Your task to perform on an android device: Go to Android settings Image 0: 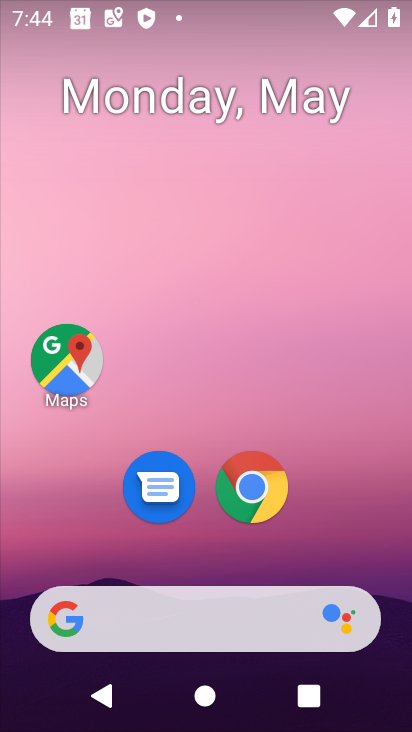
Step 0: drag from (366, 549) to (371, 304)
Your task to perform on an android device: Go to Android settings Image 1: 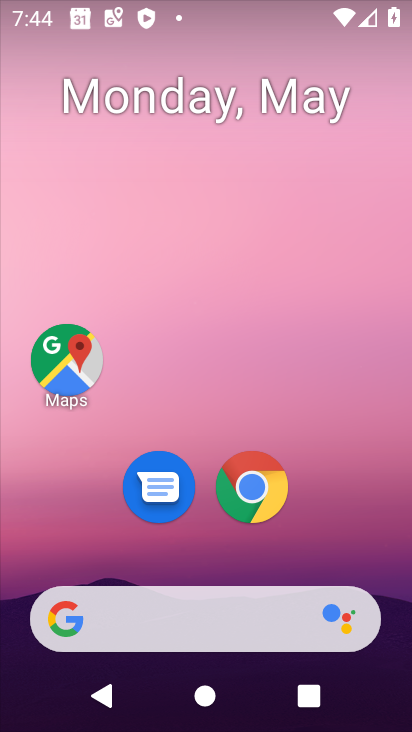
Step 1: drag from (347, 551) to (327, 100)
Your task to perform on an android device: Go to Android settings Image 2: 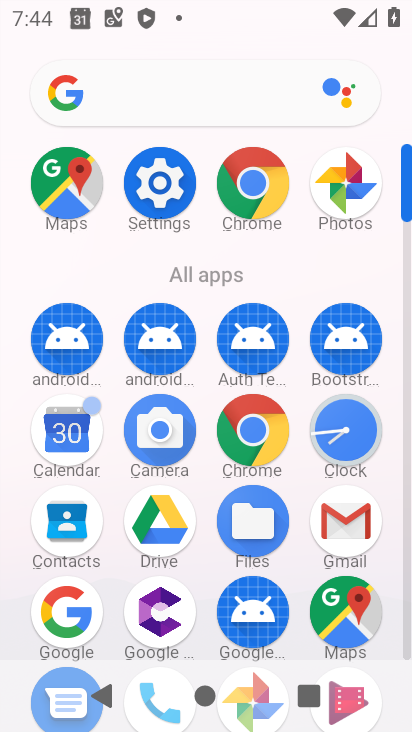
Step 2: click (172, 208)
Your task to perform on an android device: Go to Android settings Image 3: 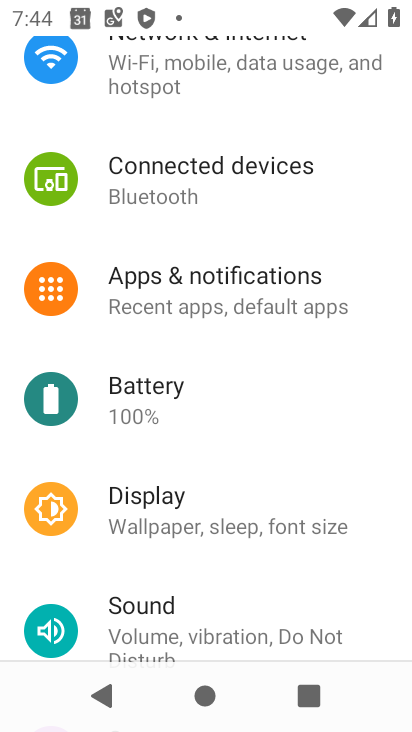
Step 3: drag from (371, 200) to (371, 303)
Your task to perform on an android device: Go to Android settings Image 4: 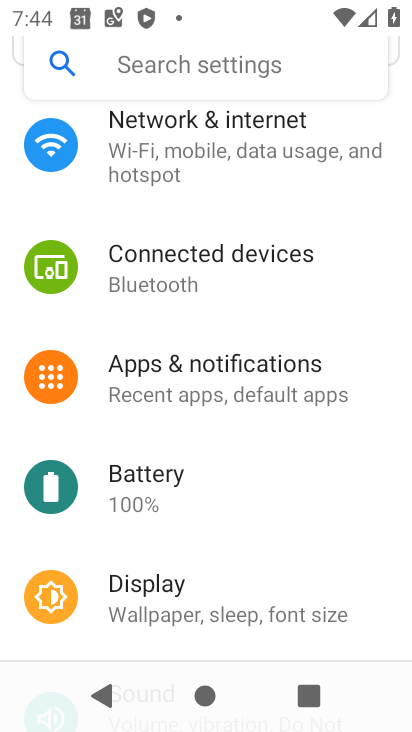
Step 4: drag from (357, 145) to (351, 386)
Your task to perform on an android device: Go to Android settings Image 5: 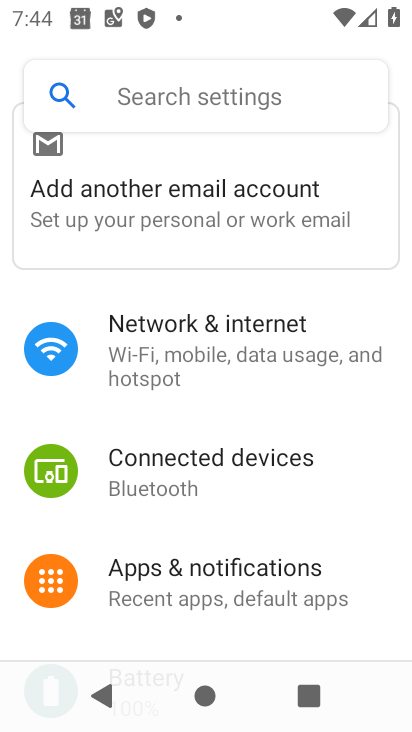
Step 5: drag from (346, 429) to (362, 262)
Your task to perform on an android device: Go to Android settings Image 6: 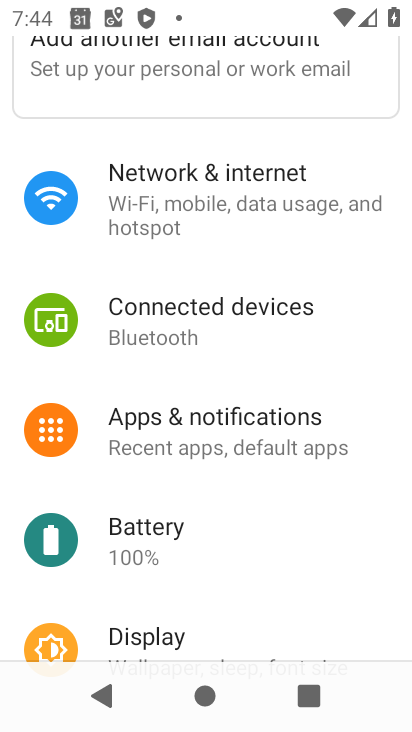
Step 6: drag from (357, 481) to (365, 252)
Your task to perform on an android device: Go to Android settings Image 7: 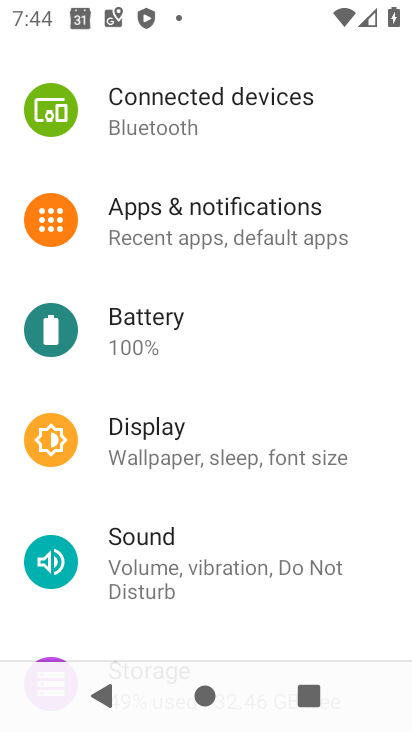
Step 7: drag from (353, 558) to (371, 364)
Your task to perform on an android device: Go to Android settings Image 8: 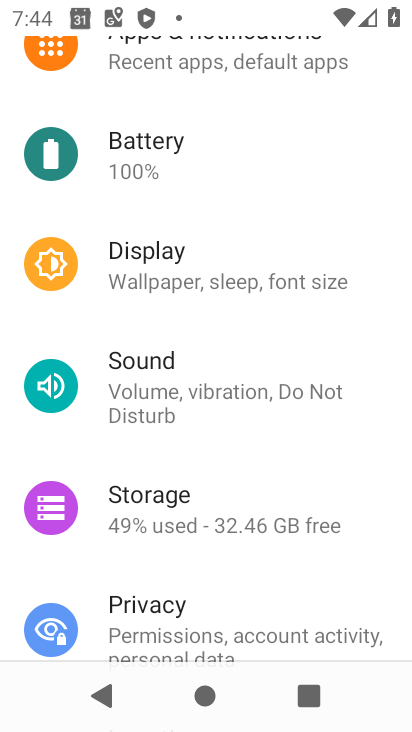
Step 8: drag from (351, 584) to (311, 296)
Your task to perform on an android device: Go to Android settings Image 9: 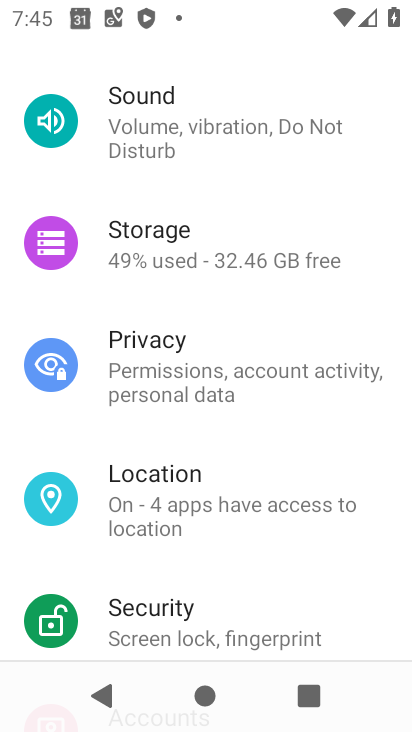
Step 9: drag from (352, 559) to (345, 440)
Your task to perform on an android device: Go to Android settings Image 10: 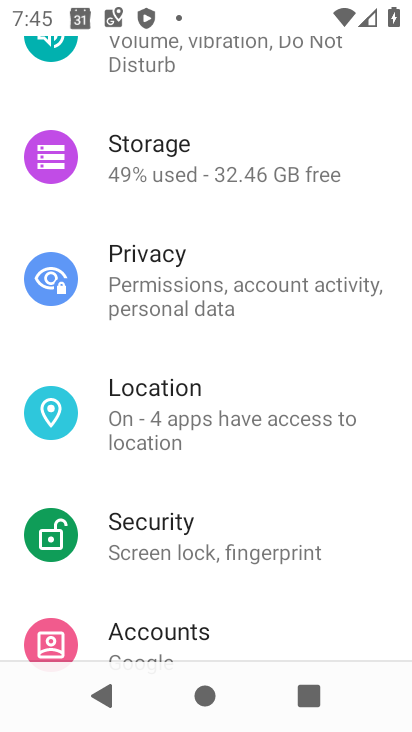
Step 10: drag from (342, 558) to (357, 360)
Your task to perform on an android device: Go to Android settings Image 11: 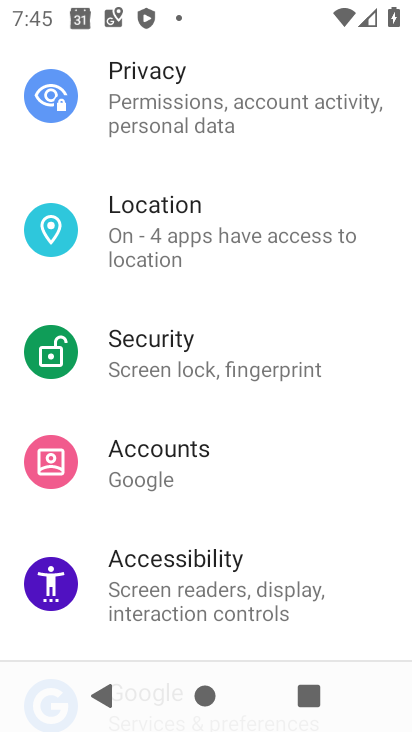
Step 11: drag from (357, 516) to (349, 373)
Your task to perform on an android device: Go to Android settings Image 12: 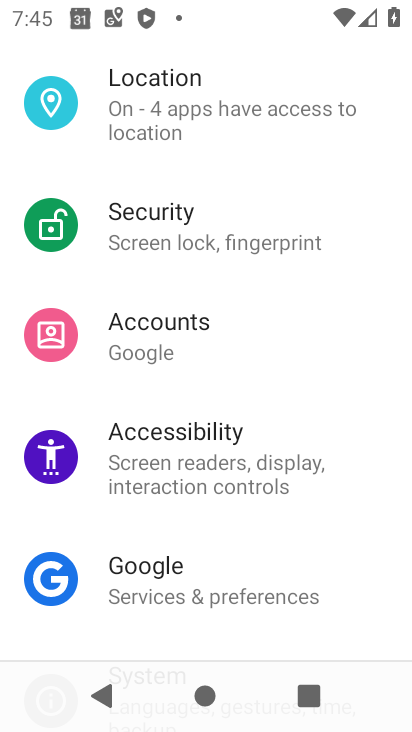
Step 12: drag from (360, 567) to (355, 448)
Your task to perform on an android device: Go to Android settings Image 13: 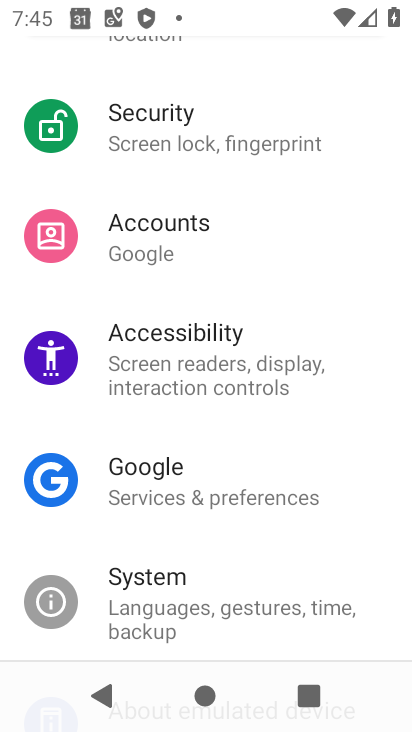
Step 13: drag from (356, 552) to (349, 418)
Your task to perform on an android device: Go to Android settings Image 14: 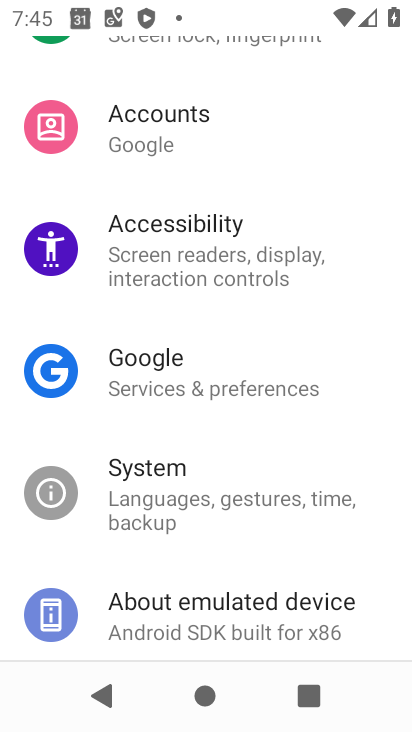
Step 14: click (242, 502)
Your task to perform on an android device: Go to Android settings Image 15: 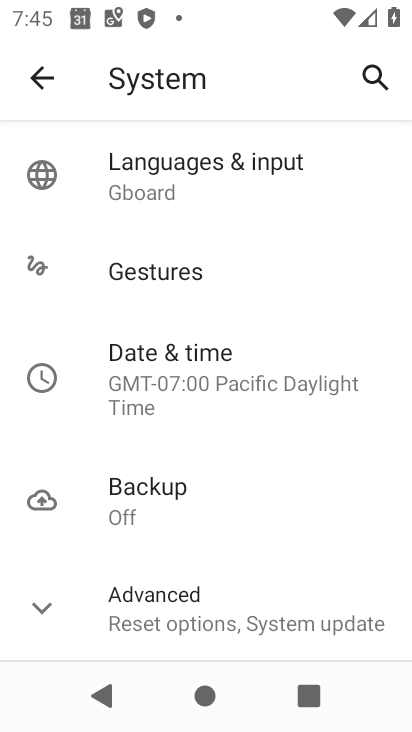
Step 15: click (190, 598)
Your task to perform on an android device: Go to Android settings Image 16: 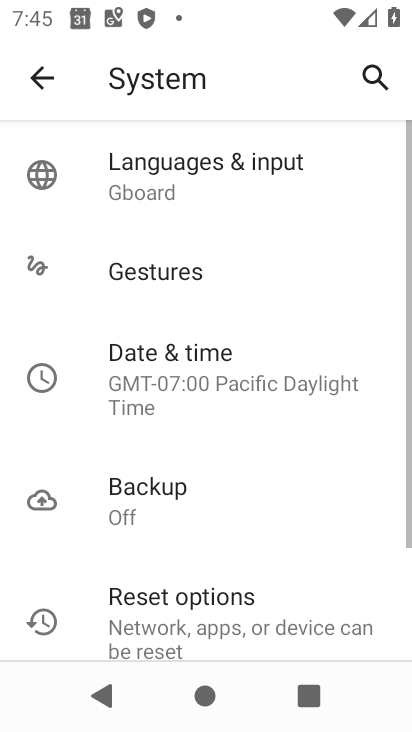
Step 16: task complete